Your task to perform on an android device: Open privacy settings Image 0: 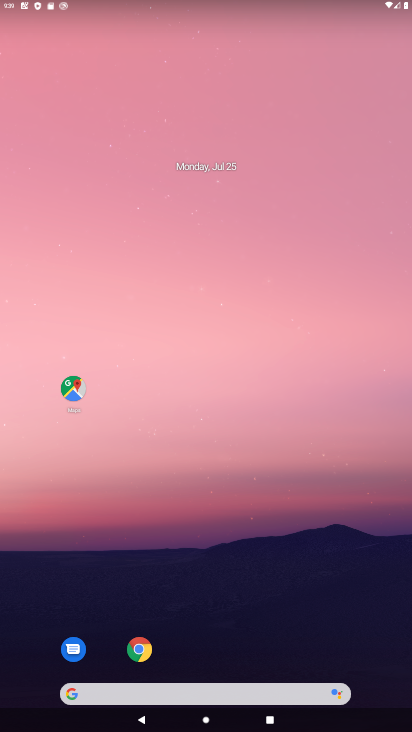
Step 0: drag from (238, 251) to (120, 4)
Your task to perform on an android device: Open privacy settings Image 1: 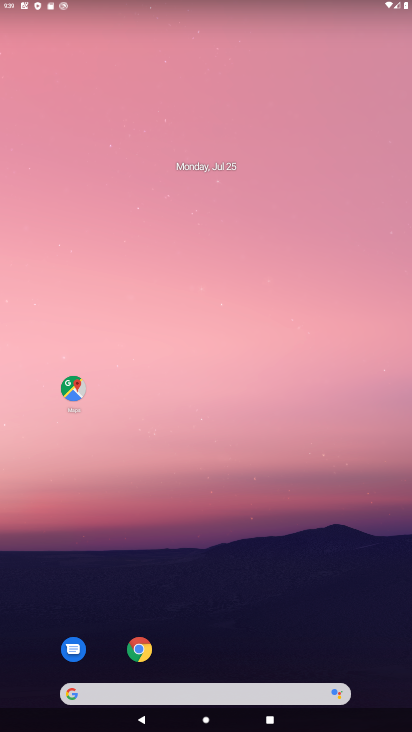
Step 1: drag from (255, 624) to (228, 17)
Your task to perform on an android device: Open privacy settings Image 2: 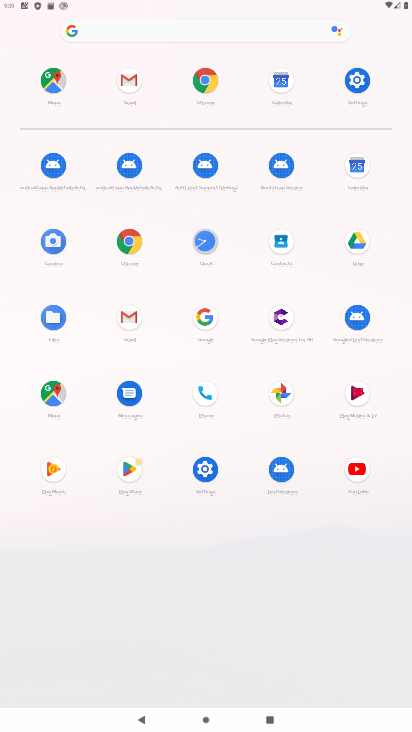
Step 2: click (349, 81)
Your task to perform on an android device: Open privacy settings Image 3: 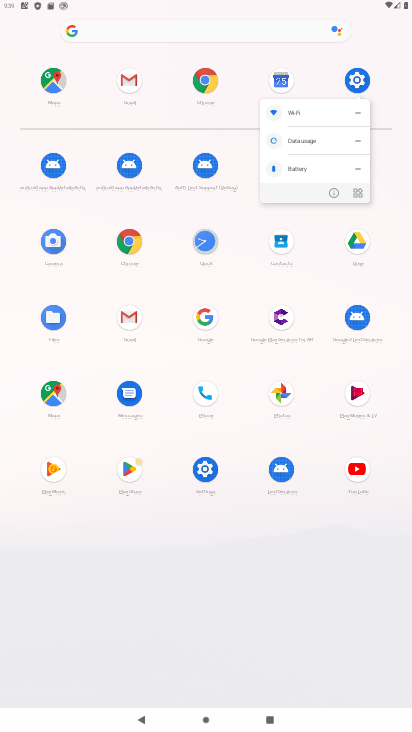
Step 3: click (348, 81)
Your task to perform on an android device: Open privacy settings Image 4: 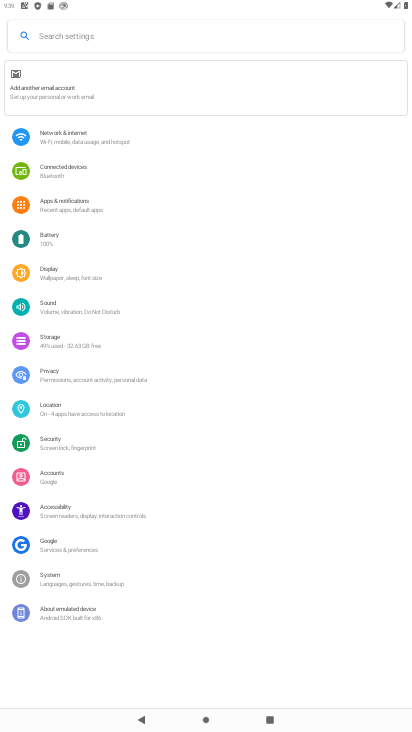
Step 4: click (77, 382)
Your task to perform on an android device: Open privacy settings Image 5: 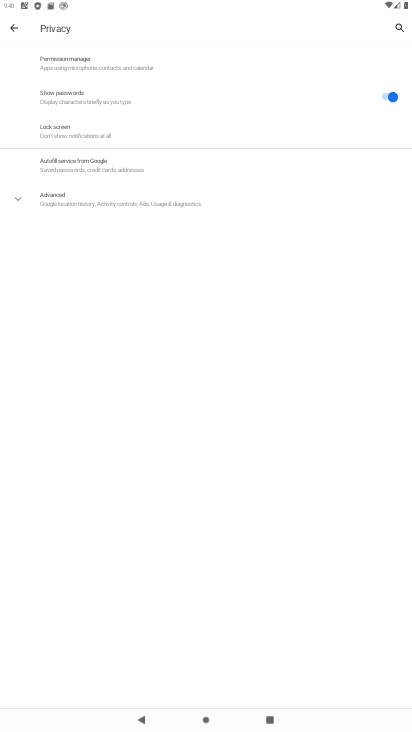
Step 5: task complete